Your task to perform on an android device: turn pop-ups off in chrome Image 0: 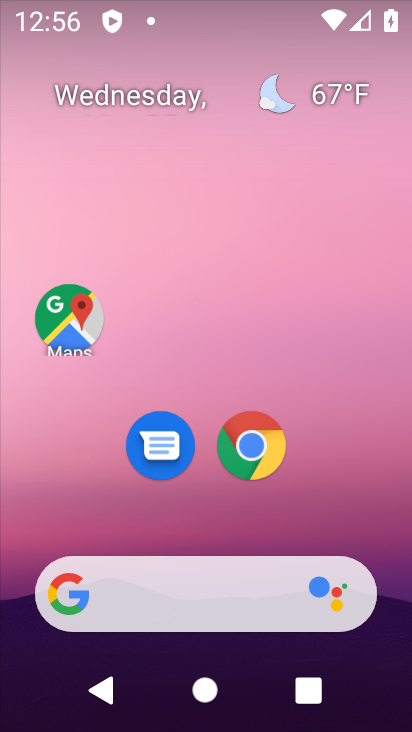
Step 0: click (259, 445)
Your task to perform on an android device: turn pop-ups off in chrome Image 1: 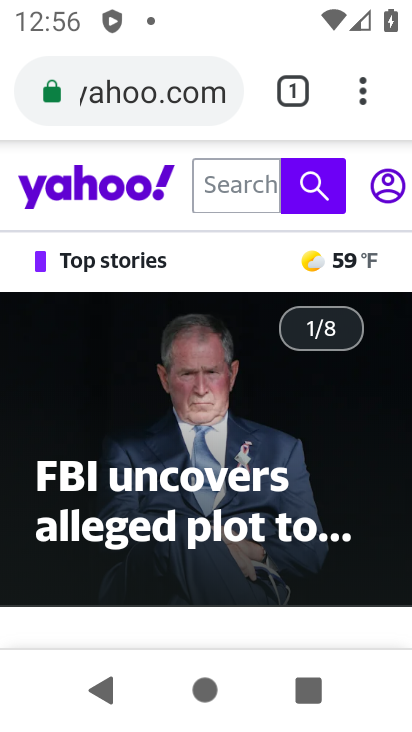
Step 1: click (369, 95)
Your task to perform on an android device: turn pop-ups off in chrome Image 2: 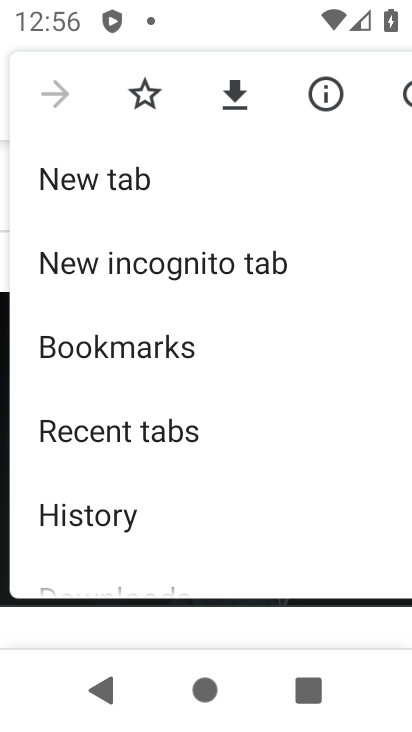
Step 2: drag from (215, 546) to (178, 114)
Your task to perform on an android device: turn pop-ups off in chrome Image 3: 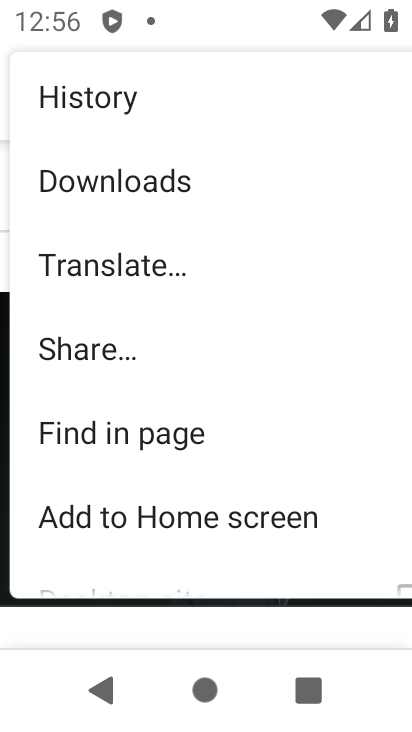
Step 3: drag from (199, 553) to (153, 199)
Your task to perform on an android device: turn pop-ups off in chrome Image 4: 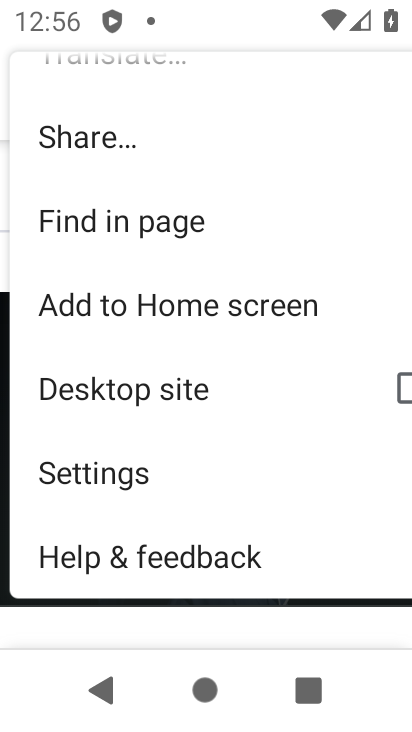
Step 4: click (136, 471)
Your task to perform on an android device: turn pop-ups off in chrome Image 5: 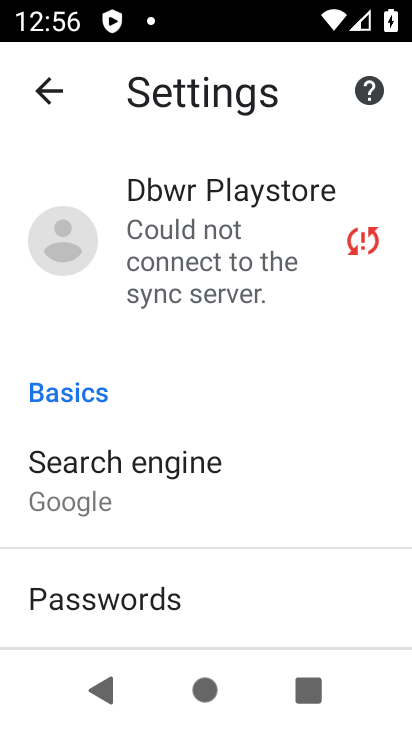
Step 5: drag from (184, 622) to (116, 190)
Your task to perform on an android device: turn pop-ups off in chrome Image 6: 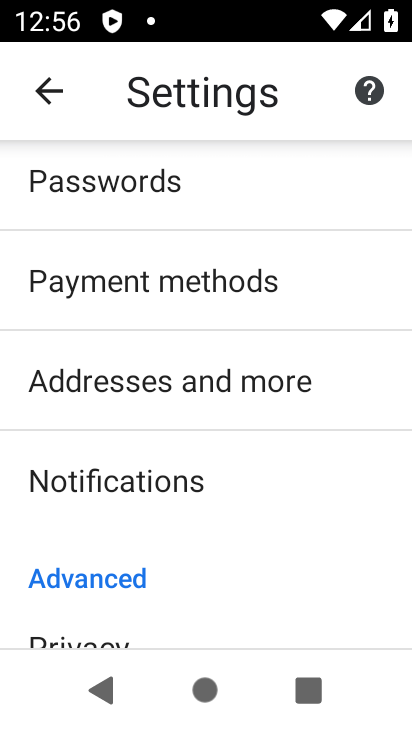
Step 6: drag from (173, 581) to (149, 142)
Your task to perform on an android device: turn pop-ups off in chrome Image 7: 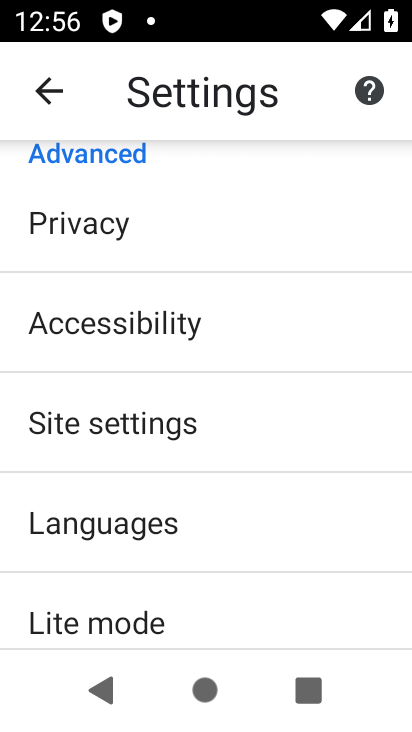
Step 7: click (188, 443)
Your task to perform on an android device: turn pop-ups off in chrome Image 8: 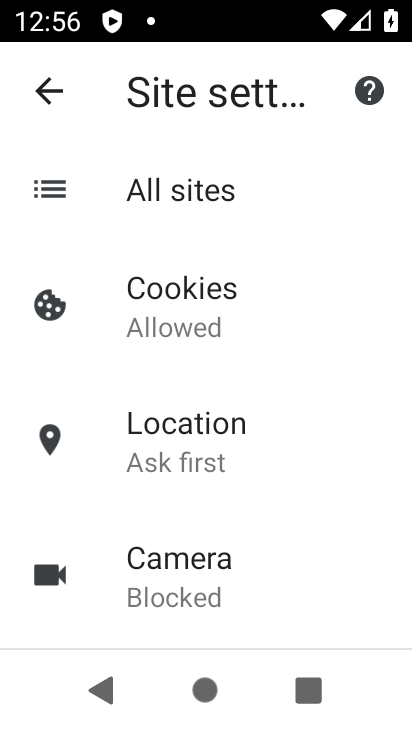
Step 8: drag from (231, 524) to (189, 161)
Your task to perform on an android device: turn pop-ups off in chrome Image 9: 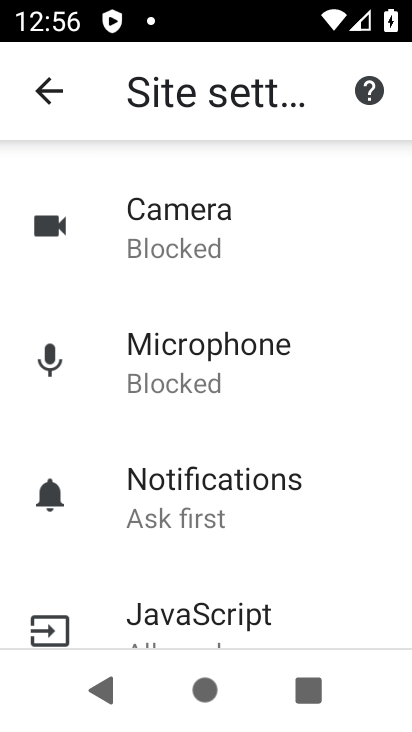
Step 9: drag from (237, 555) to (206, 213)
Your task to perform on an android device: turn pop-ups off in chrome Image 10: 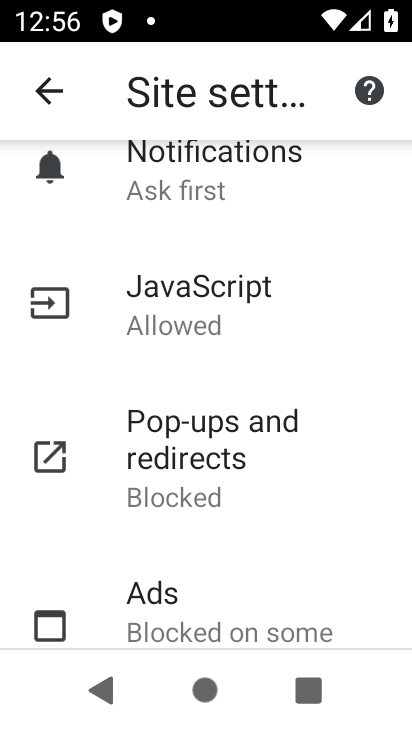
Step 10: click (224, 462)
Your task to perform on an android device: turn pop-ups off in chrome Image 11: 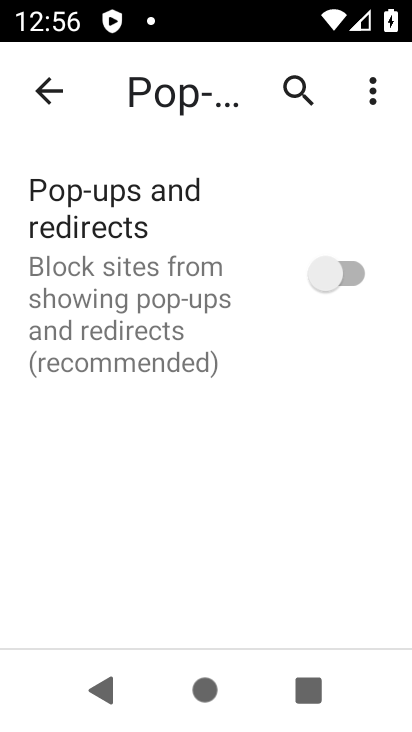
Step 11: task complete